Your task to perform on an android device: see creations saved in the google photos Image 0: 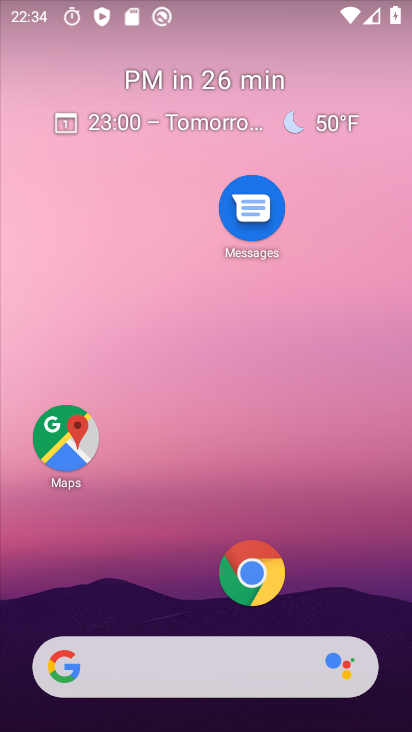
Step 0: drag from (157, 589) to (166, 110)
Your task to perform on an android device: see creations saved in the google photos Image 1: 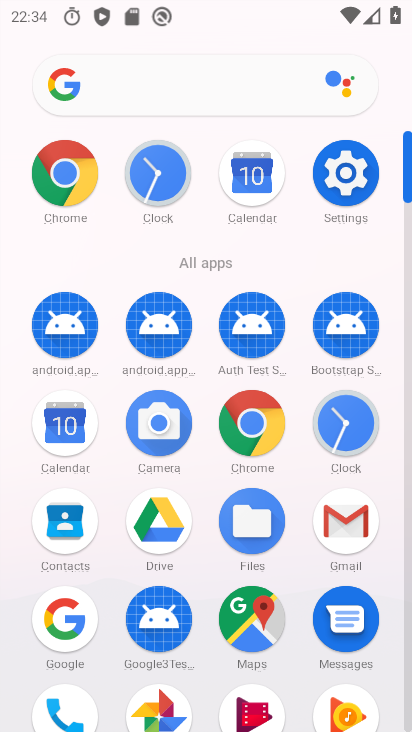
Step 1: drag from (111, 608) to (120, 390)
Your task to perform on an android device: see creations saved in the google photos Image 2: 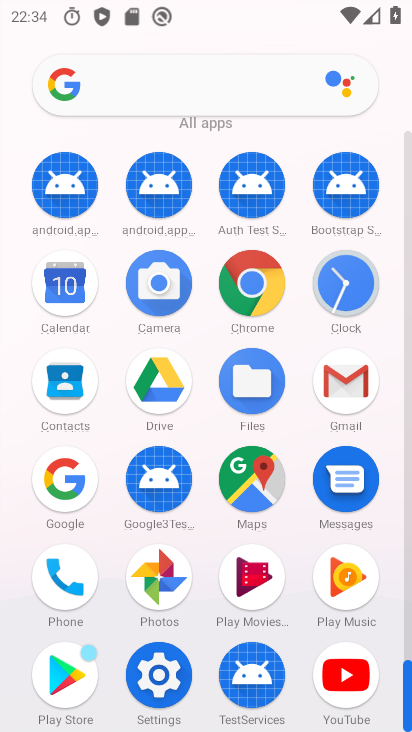
Step 2: click (158, 578)
Your task to perform on an android device: see creations saved in the google photos Image 3: 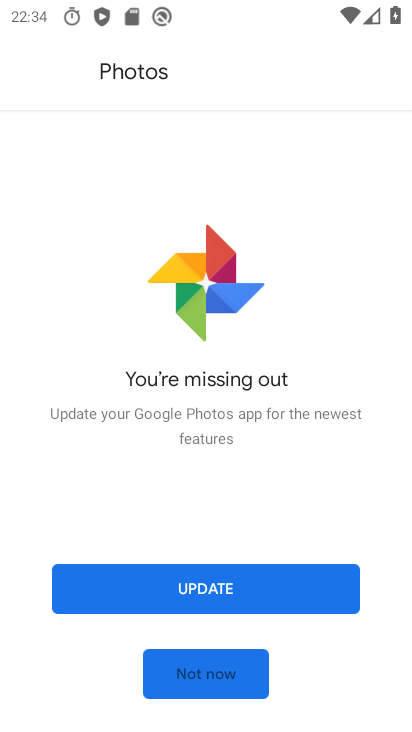
Step 3: click (196, 596)
Your task to perform on an android device: see creations saved in the google photos Image 4: 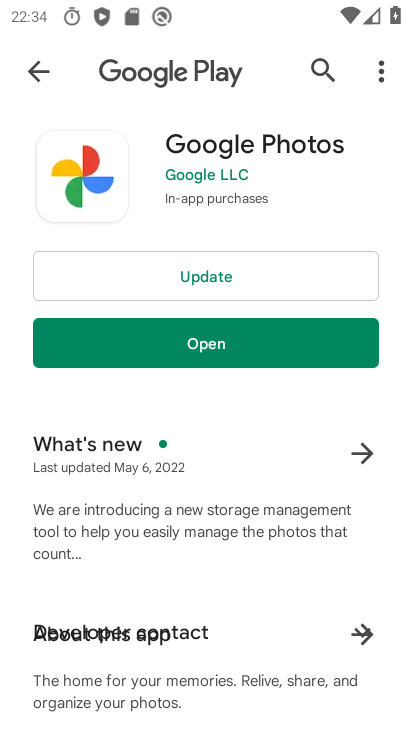
Step 4: click (212, 356)
Your task to perform on an android device: see creations saved in the google photos Image 5: 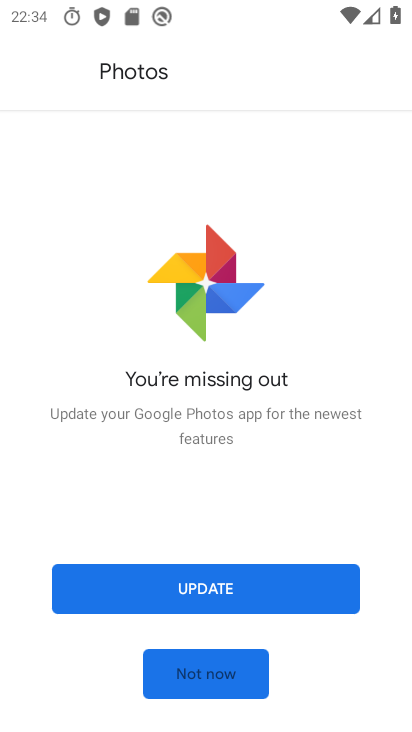
Step 5: click (199, 589)
Your task to perform on an android device: see creations saved in the google photos Image 6: 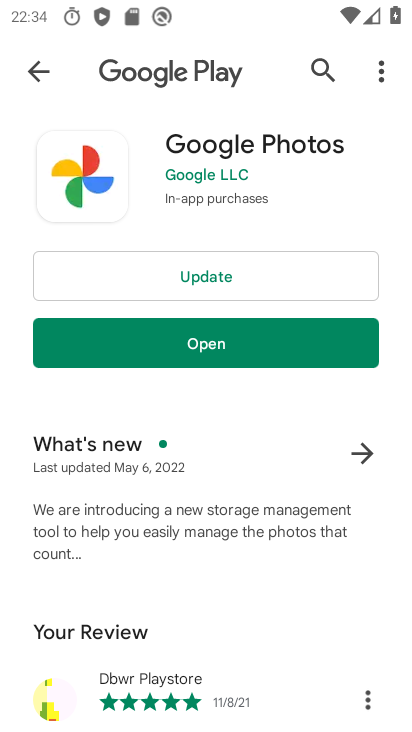
Step 6: click (180, 291)
Your task to perform on an android device: see creations saved in the google photos Image 7: 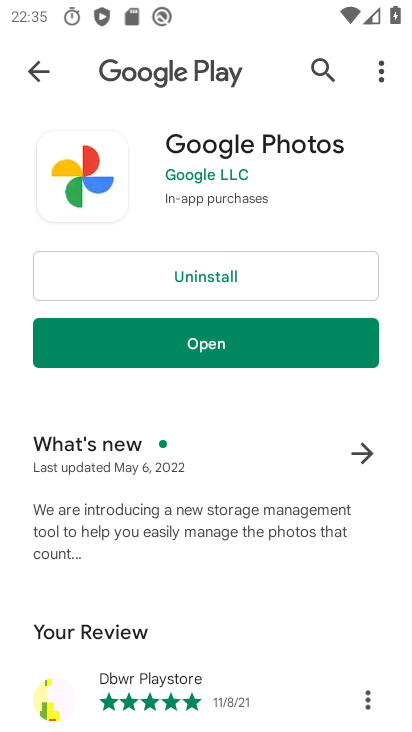
Step 7: click (221, 340)
Your task to perform on an android device: see creations saved in the google photos Image 8: 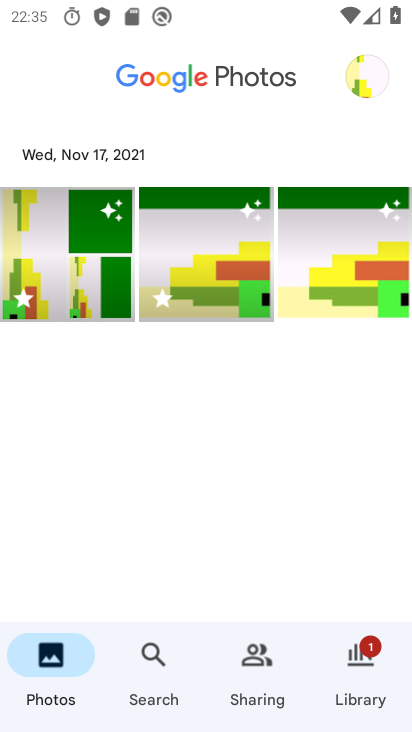
Step 8: click (154, 670)
Your task to perform on an android device: see creations saved in the google photos Image 9: 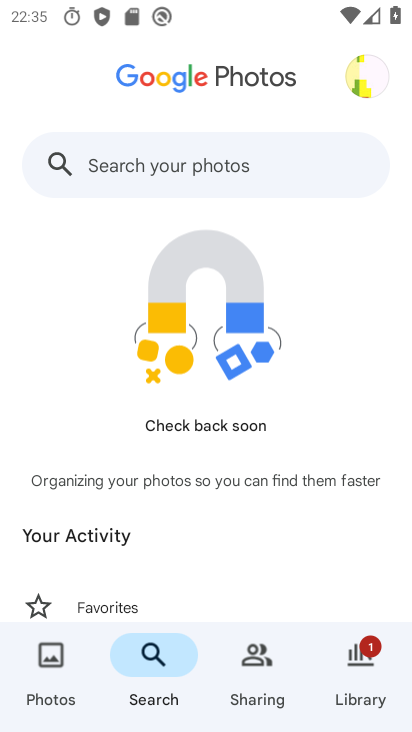
Step 9: click (178, 164)
Your task to perform on an android device: see creations saved in the google photos Image 10: 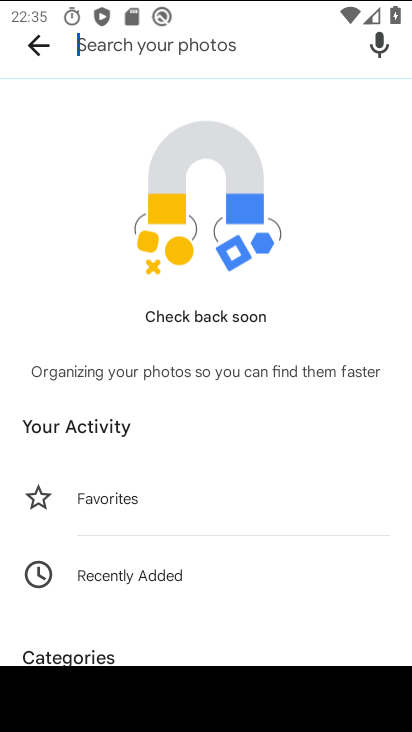
Step 10: drag from (158, 642) to (168, 299)
Your task to perform on an android device: see creations saved in the google photos Image 11: 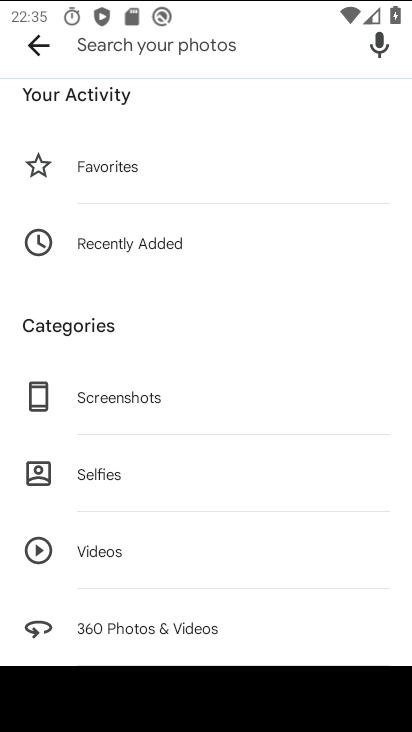
Step 11: drag from (171, 508) to (181, 254)
Your task to perform on an android device: see creations saved in the google photos Image 12: 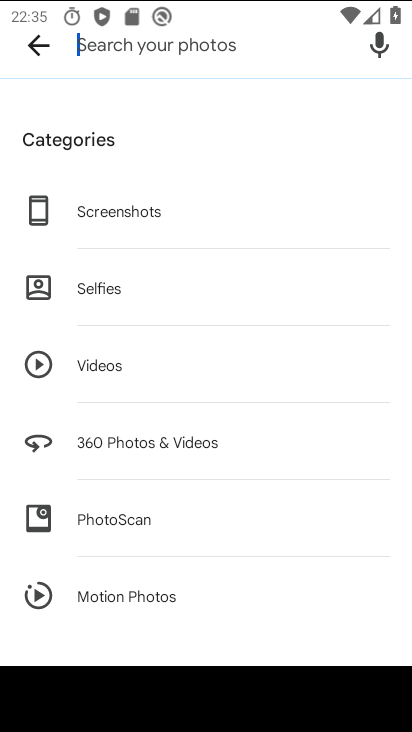
Step 12: drag from (156, 216) to (167, 555)
Your task to perform on an android device: see creations saved in the google photos Image 13: 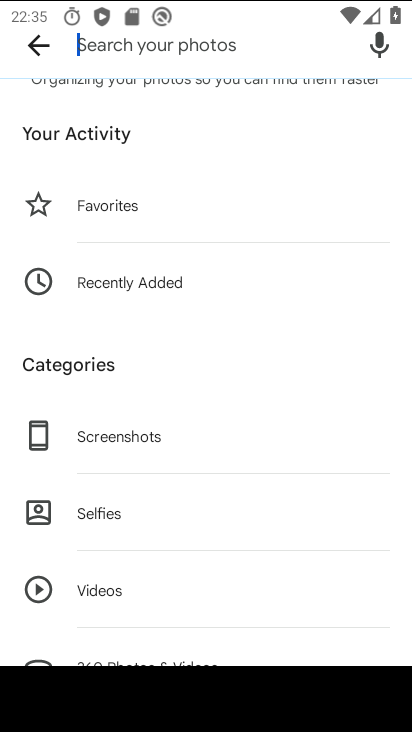
Step 13: drag from (125, 164) to (187, 132)
Your task to perform on an android device: see creations saved in the google photos Image 14: 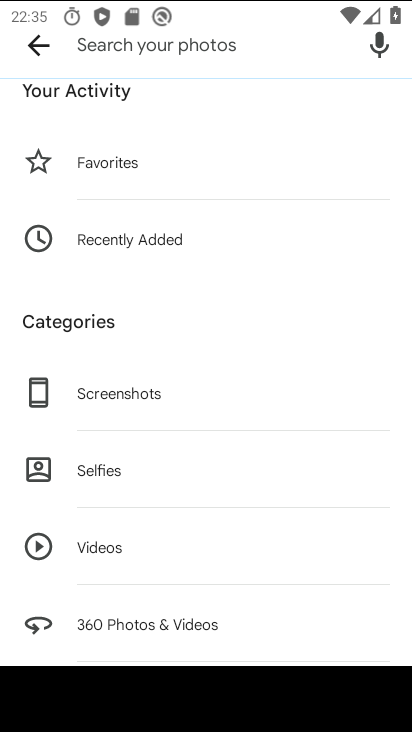
Step 14: drag from (168, 549) to (207, 181)
Your task to perform on an android device: see creations saved in the google photos Image 15: 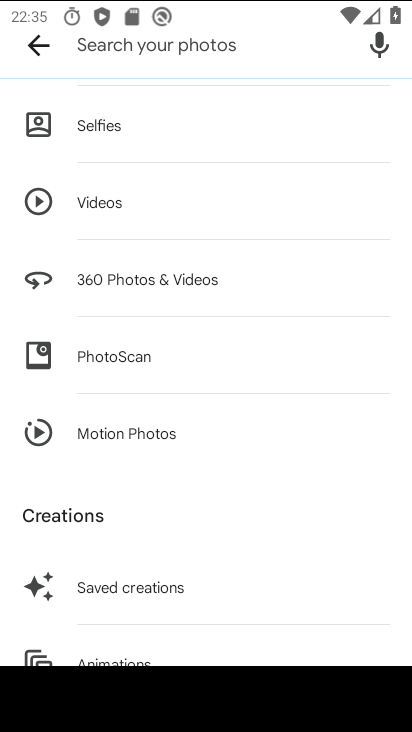
Step 15: click (142, 585)
Your task to perform on an android device: see creations saved in the google photos Image 16: 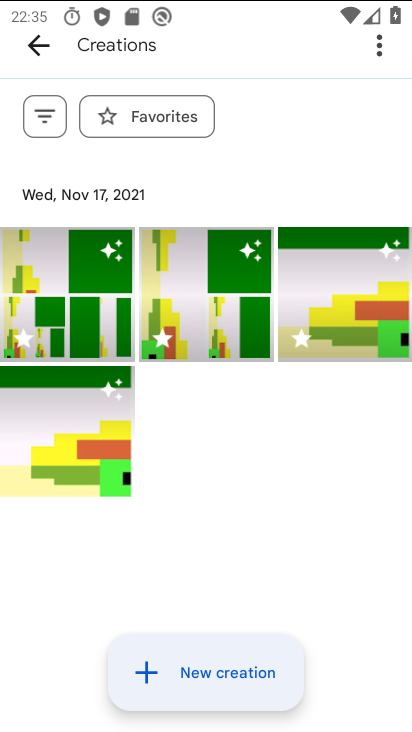
Step 16: task complete